Your task to perform on an android device: Open the calendar and show me this week's events? Image 0: 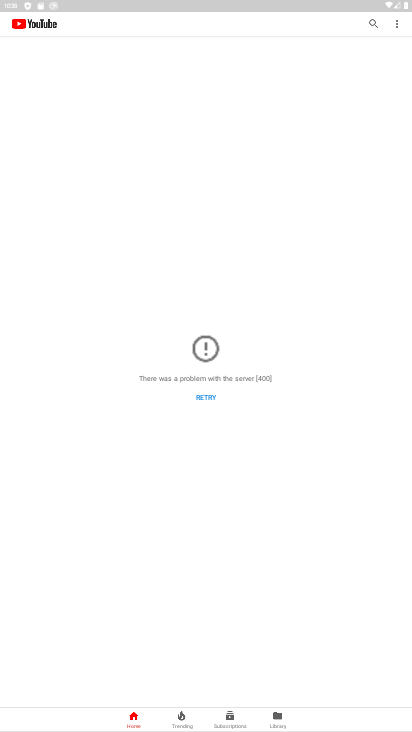
Step 0: press home button
Your task to perform on an android device: Open the calendar and show me this week's events? Image 1: 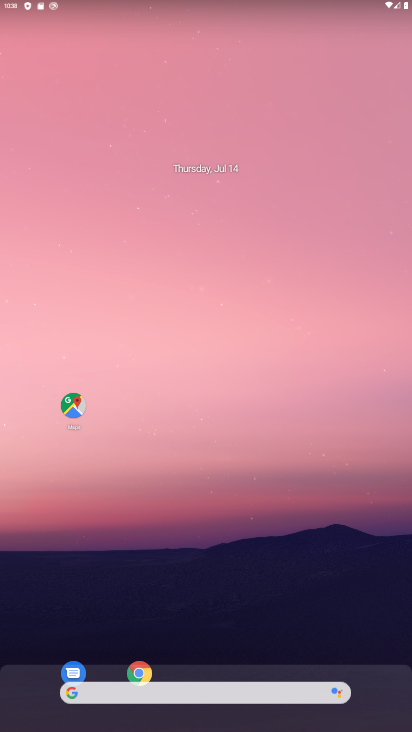
Step 1: drag from (267, 346) to (216, 43)
Your task to perform on an android device: Open the calendar and show me this week's events? Image 2: 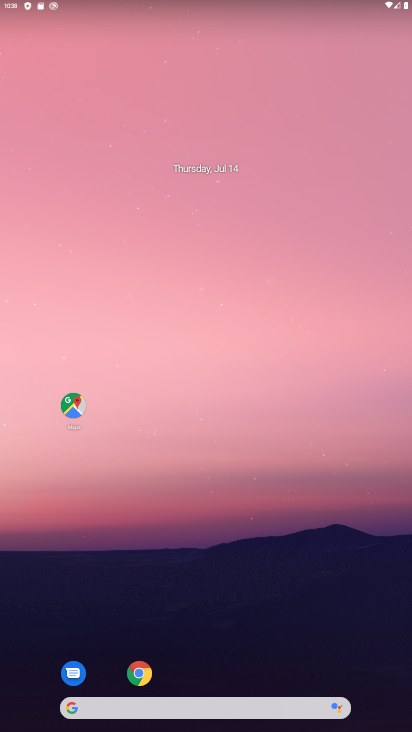
Step 2: drag from (313, 632) to (237, 142)
Your task to perform on an android device: Open the calendar and show me this week's events? Image 3: 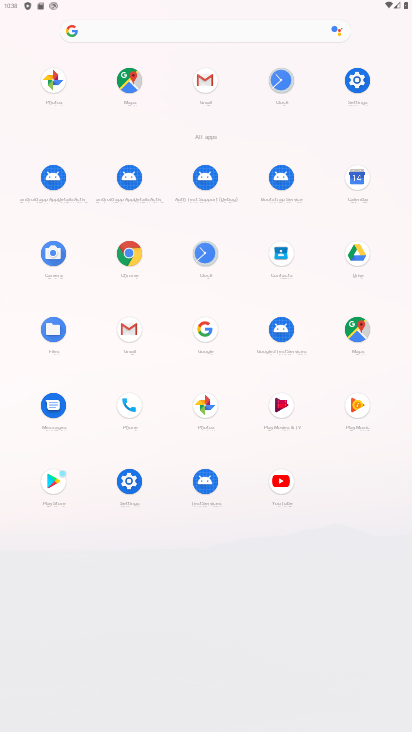
Step 3: click (355, 174)
Your task to perform on an android device: Open the calendar and show me this week's events? Image 4: 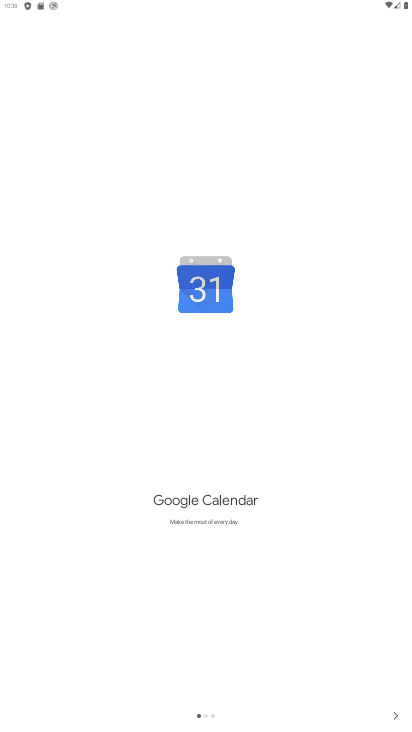
Step 4: click (398, 711)
Your task to perform on an android device: Open the calendar and show me this week's events? Image 5: 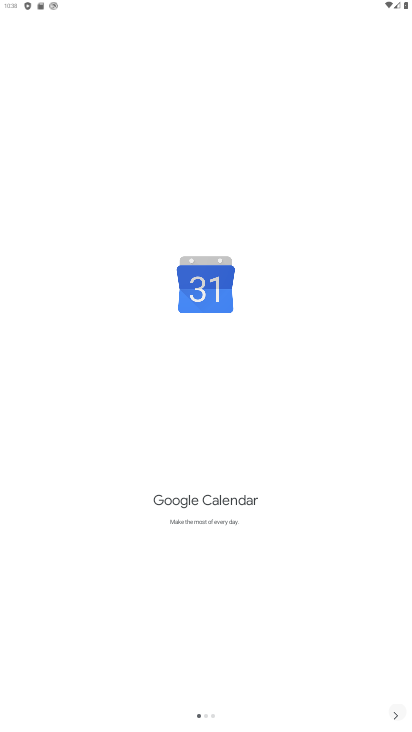
Step 5: click (398, 711)
Your task to perform on an android device: Open the calendar and show me this week's events? Image 6: 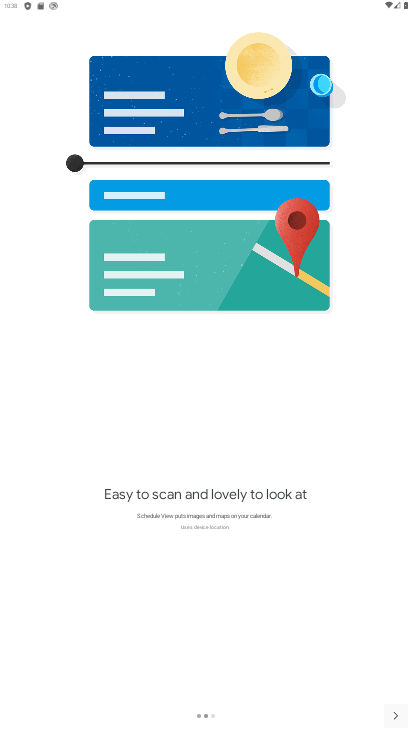
Step 6: click (398, 711)
Your task to perform on an android device: Open the calendar and show me this week's events? Image 7: 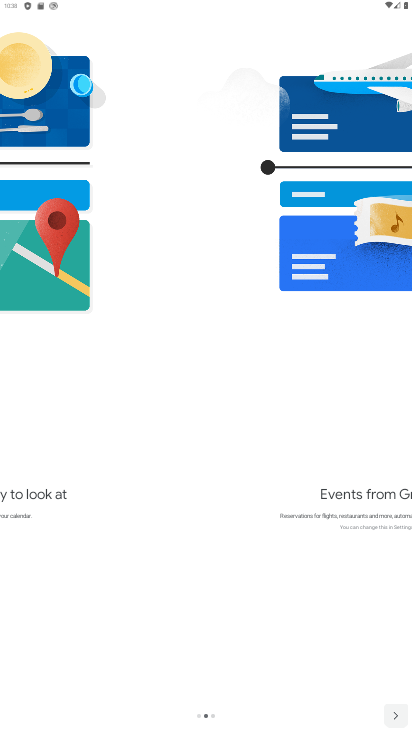
Step 7: click (398, 711)
Your task to perform on an android device: Open the calendar and show me this week's events? Image 8: 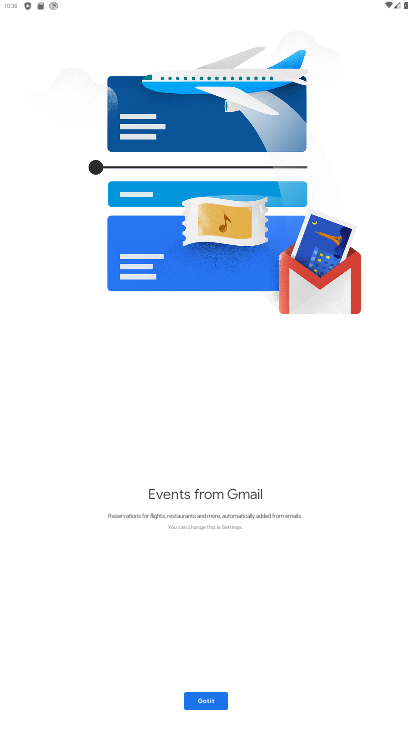
Step 8: click (199, 708)
Your task to perform on an android device: Open the calendar and show me this week's events? Image 9: 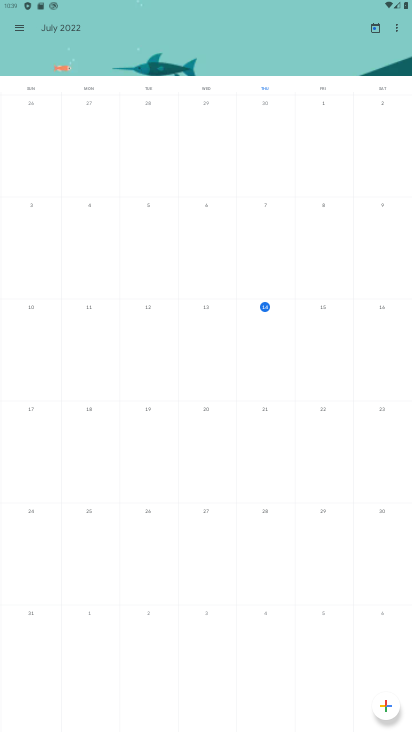
Step 9: click (19, 26)
Your task to perform on an android device: Open the calendar and show me this week's events? Image 10: 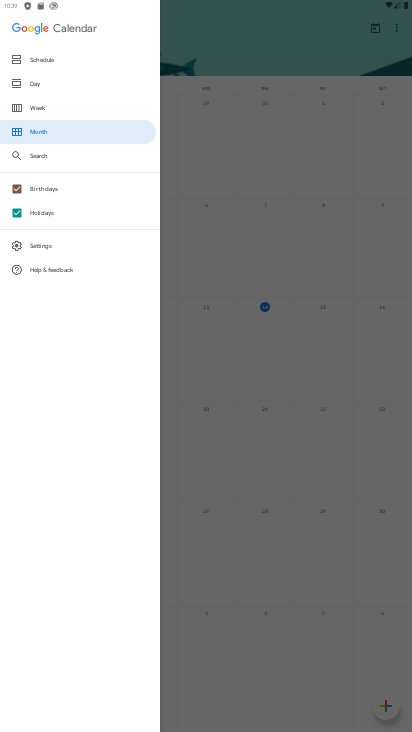
Step 10: click (13, 215)
Your task to perform on an android device: Open the calendar and show me this week's events? Image 11: 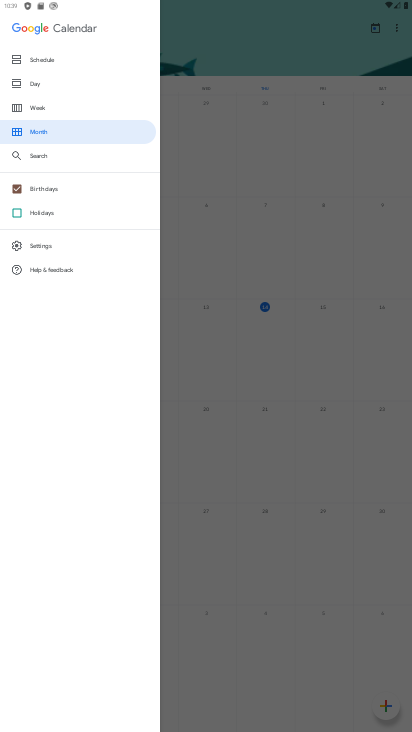
Step 11: click (14, 183)
Your task to perform on an android device: Open the calendar and show me this week's events? Image 12: 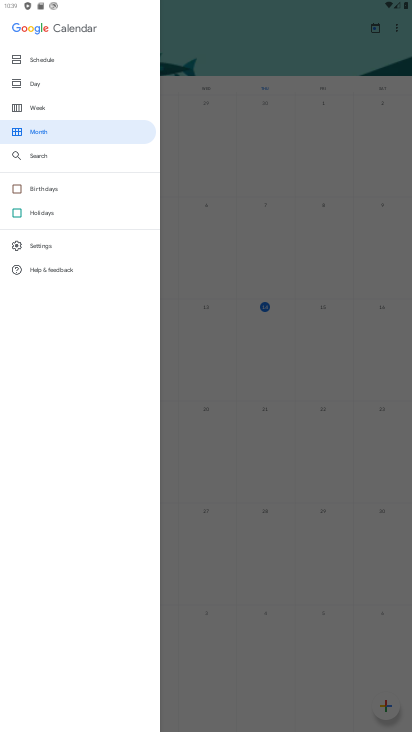
Step 12: drag from (63, 219) to (48, 132)
Your task to perform on an android device: Open the calendar and show me this week's events? Image 13: 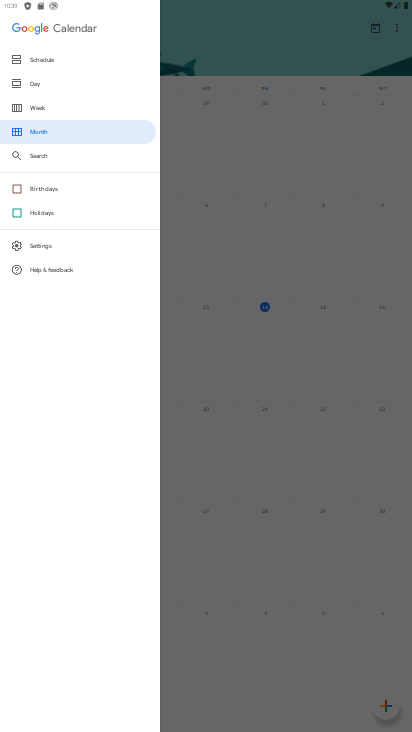
Step 13: drag from (62, 219) to (50, 94)
Your task to perform on an android device: Open the calendar and show me this week's events? Image 14: 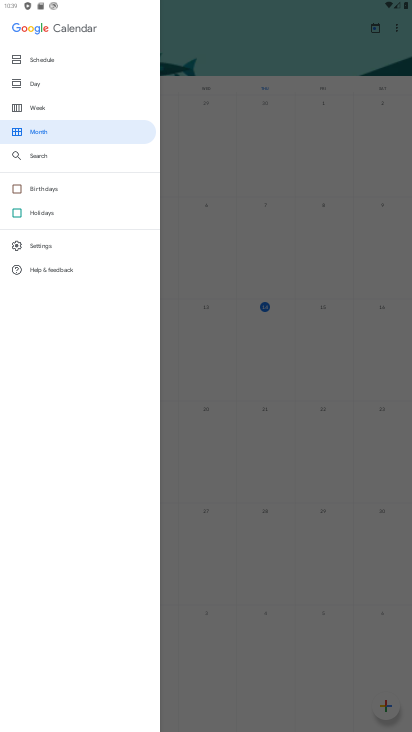
Step 14: drag from (61, 181) to (78, 271)
Your task to perform on an android device: Open the calendar and show me this week's events? Image 15: 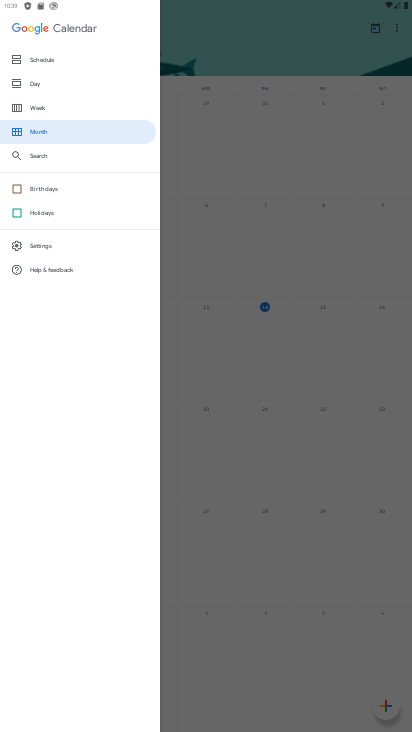
Step 15: click (60, 112)
Your task to perform on an android device: Open the calendar and show me this week's events? Image 16: 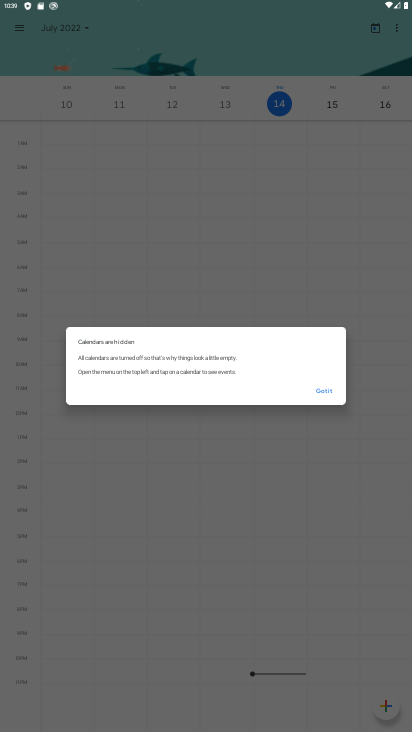
Step 16: click (328, 395)
Your task to perform on an android device: Open the calendar and show me this week's events? Image 17: 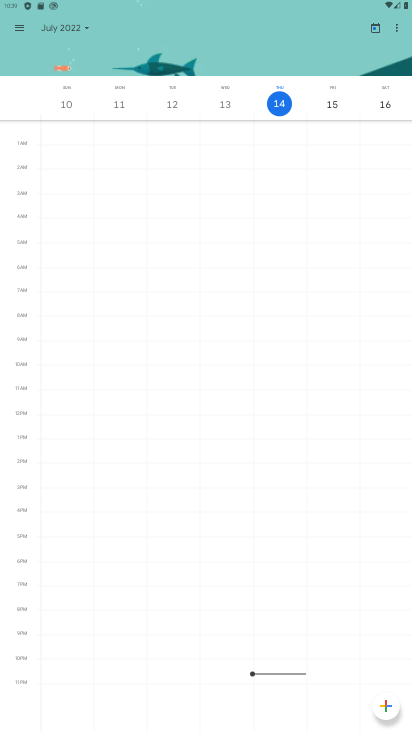
Step 17: task complete